Your task to perform on an android device: Search for sushi restaurants on Maps Image 0: 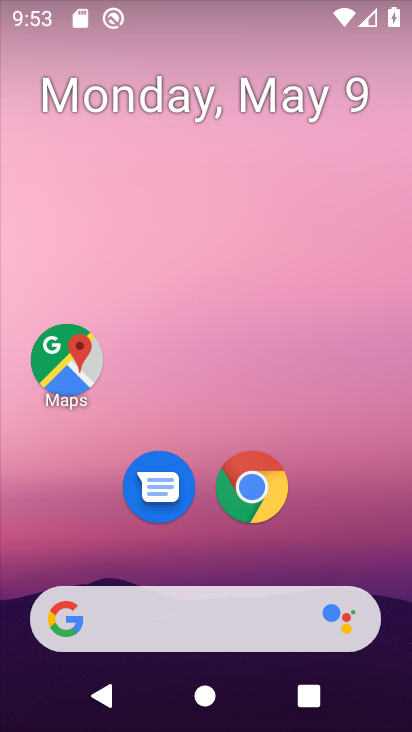
Step 0: drag from (343, 503) to (272, 13)
Your task to perform on an android device: Search for sushi restaurants on Maps Image 1: 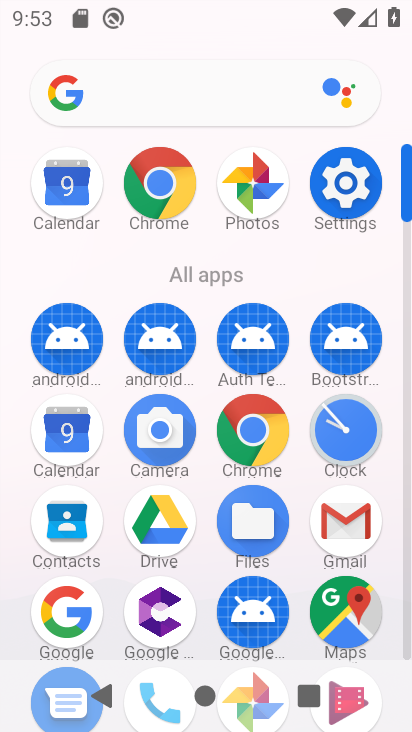
Step 1: click (340, 616)
Your task to perform on an android device: Search for sushi restaurants on Maps Image 2: 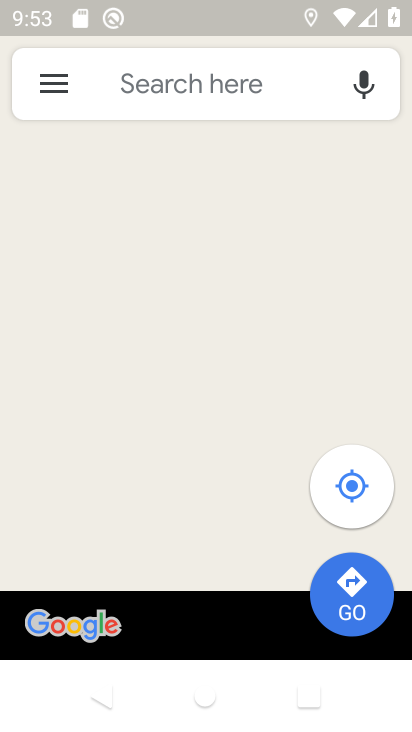
Step 2: click (273, 78)
Your task to perform on an android device: Search for sushi restaurants on Maps Image 3: 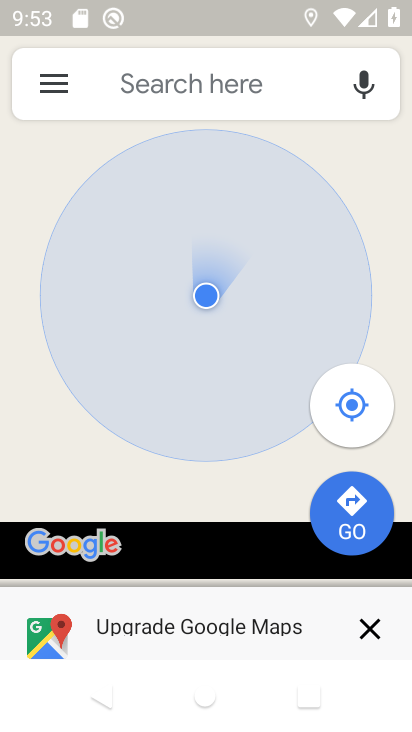
Step 3: click (273, 78)
Your task to perform on an android device: Search for sushi restaurants on Maps Image 4: 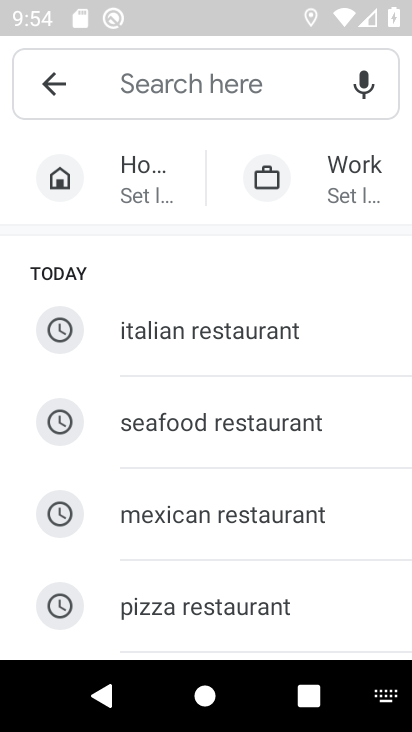
Step 4: drag from (279, 588) to (302, 294)
Your task to perform on an android device: Search for sushi restaurants on Maps Image 5: 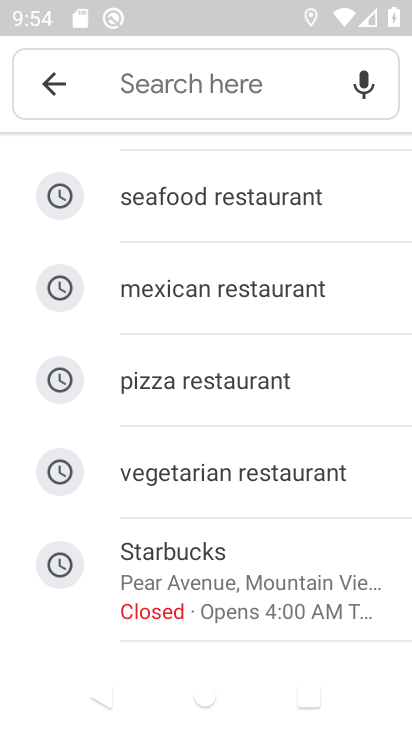
Step 5: drag from (284, 508) to (282, 187)
Your task to perform on an android device: Search for sushi restaurants on Maps Image 6: 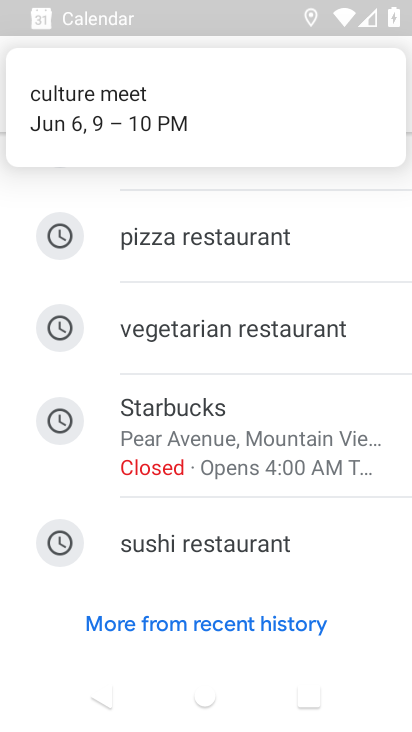
Step 6: click (244, 540)
Your task to perform on an android device: Search for sushi restaurants on Maps Image 7: 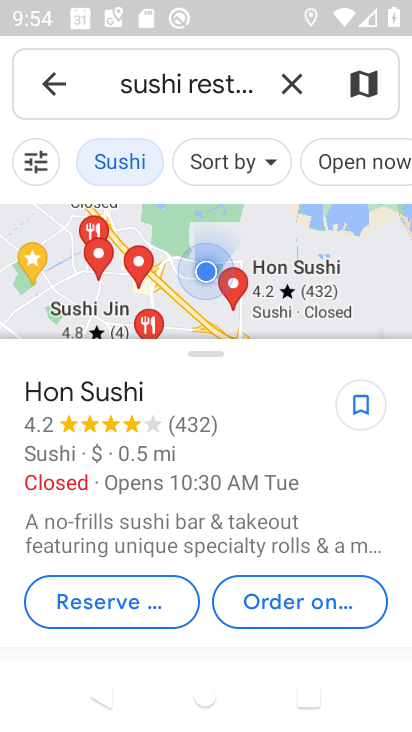
Step 7: drag from (230, 558) to (258, 281)
Your task to perform on an android device: Search for sushi restaurants on Maps Image 8: 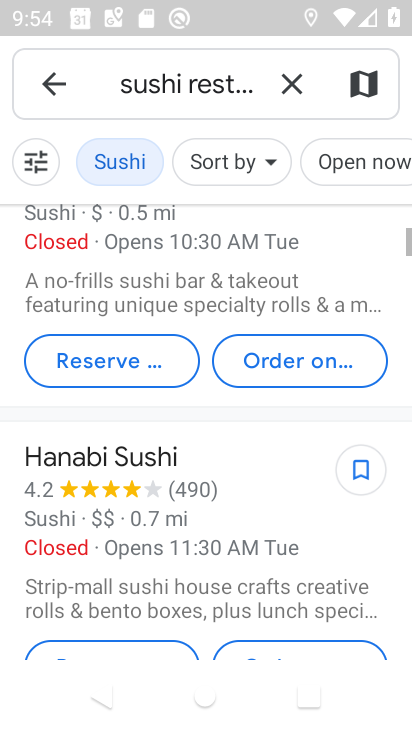
Step 8: drag from (256, 539) to (259, 376)
Your task to perform on an android device: Search for sushi restaurants on Maps Image 9: 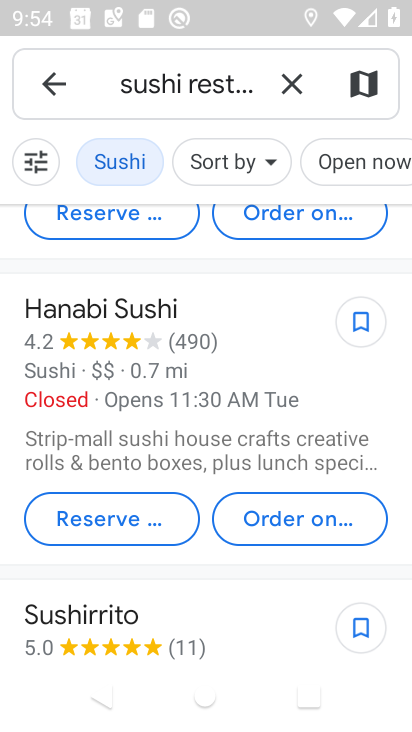
Step 9: drag from (238, 594) to (234, 250)
Your task to perform on an android device: Search for sushi restaurants on Maps Image 10: 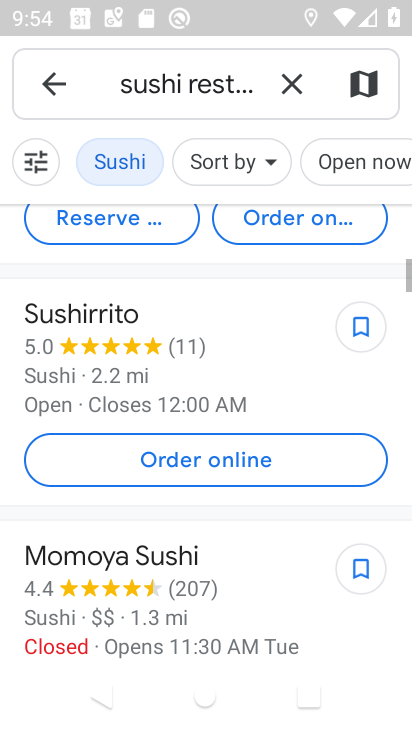
Step 10: drag from (241, 621) to (255, 259)
Your task to perform on an android device: Search for sushi restaurants on Maps Image 11: 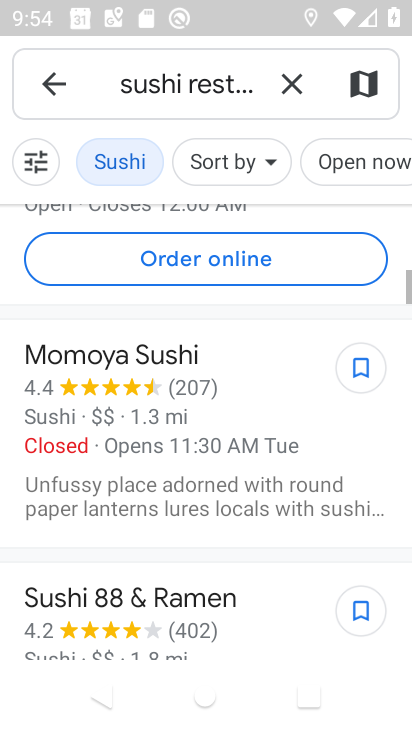
Step 11: click (269, 308)
Your task to perform on an android device: Search for sushi restaurants on Maps Image 12: 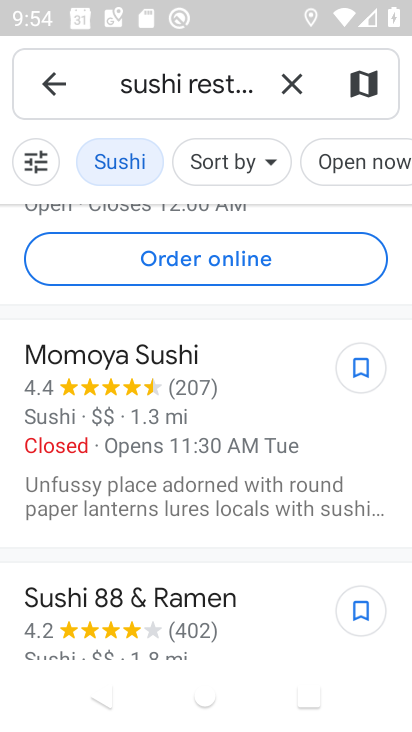
Step 12: task complete